Your task to perform on an android device: find snoozed emails in the gmail app Image 0: 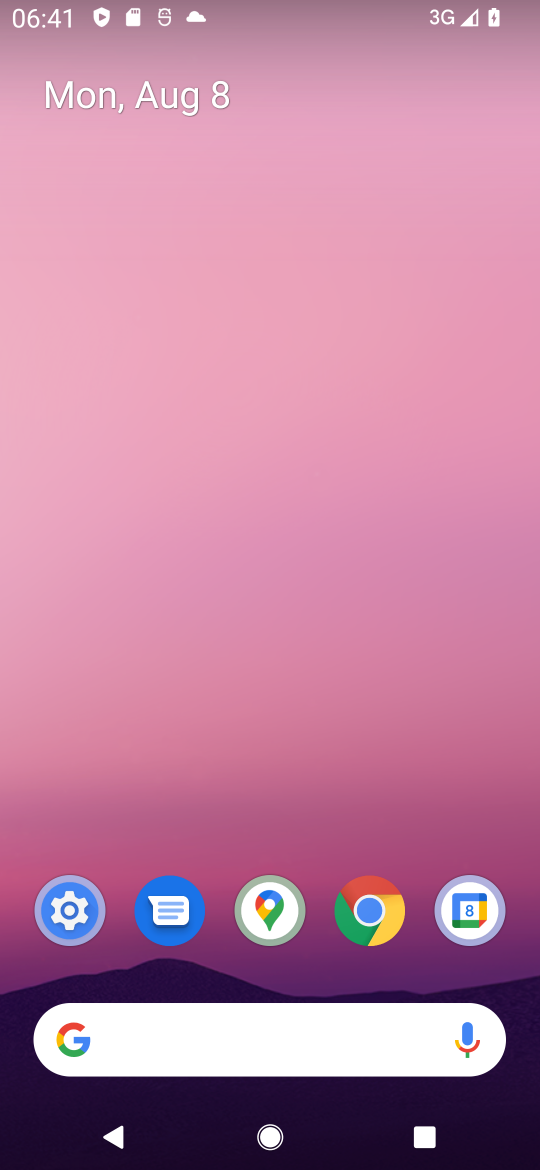
Step 0: drag from (242, 1052) to (403, 336)
Your task to perform on an android device: find snoozed emails in the gmail app Image 1: 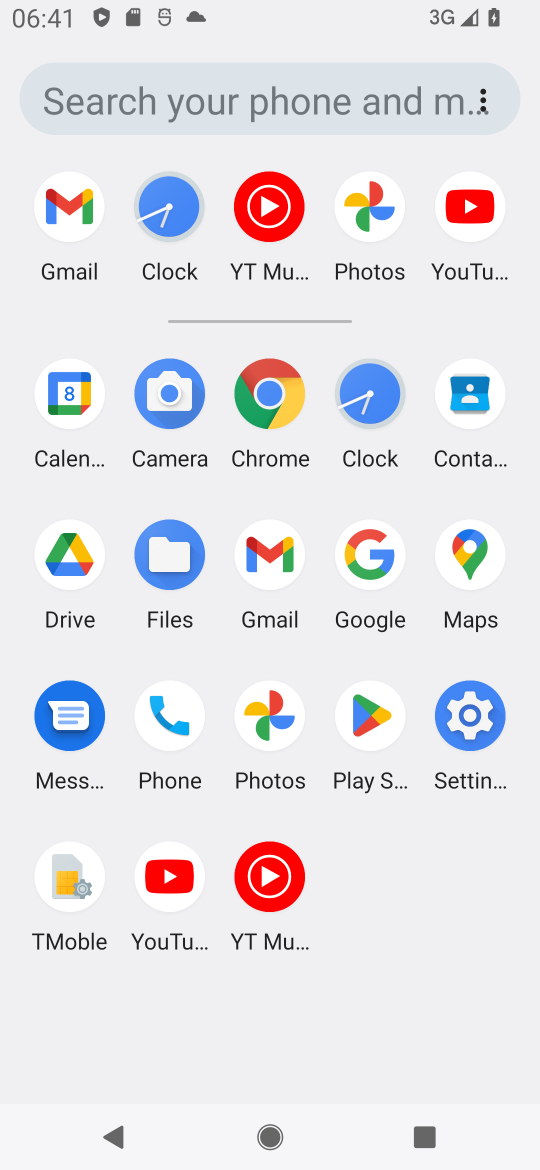
Step 1: click (274, 559)
Your task to perform on an android device: find snoozed emails in the gmail app Image 2: 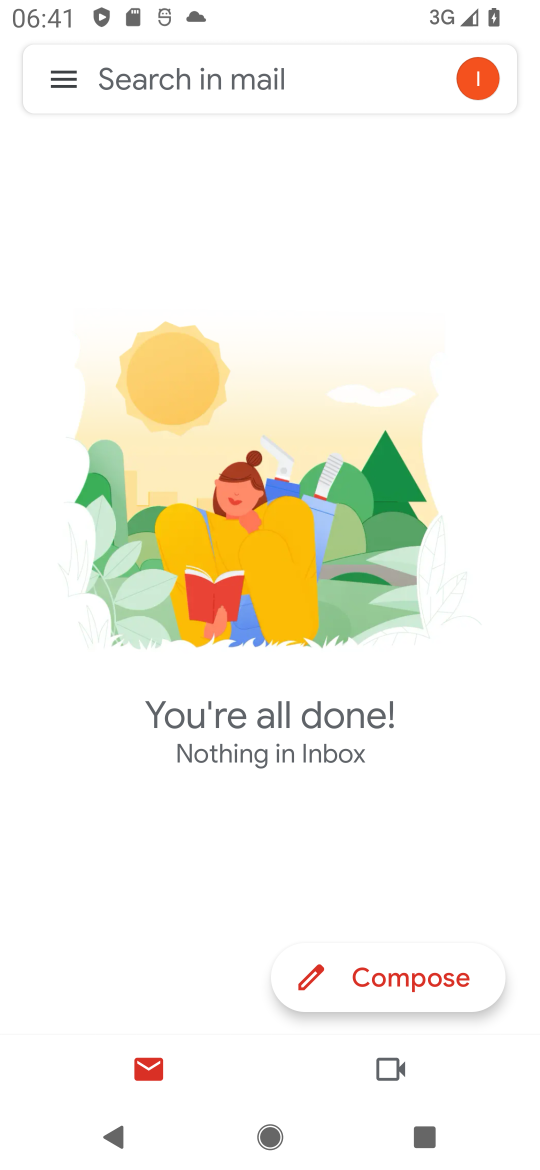
Step 2: click (68, 82)
Your task to perform on an android device: find snoozed emails in the gmail app Image 3: 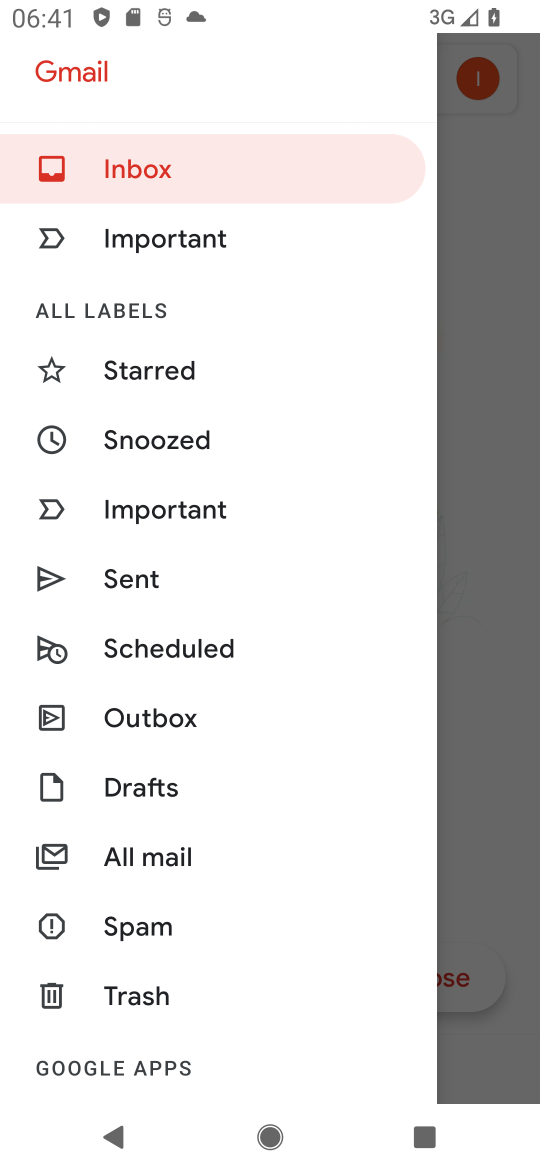
Step 3: click (158, 448)
Your task to perform on an android device: find snoozed emails in the gmail app Image 4: 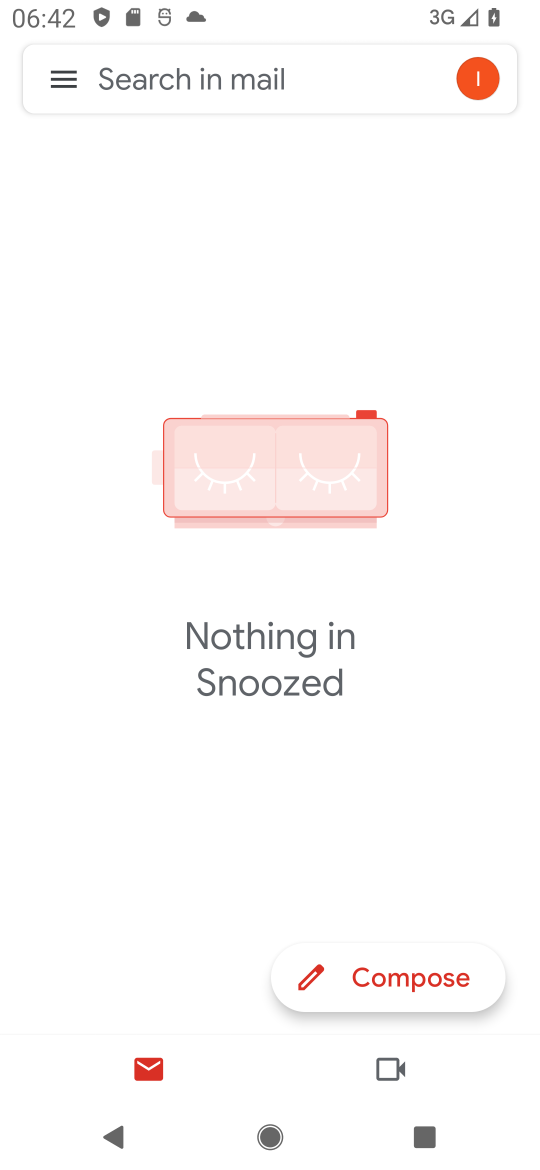
Step 4: click (61, 88)
Your task to perform on an android device: find snoozed emails in the gmail app Image 5: 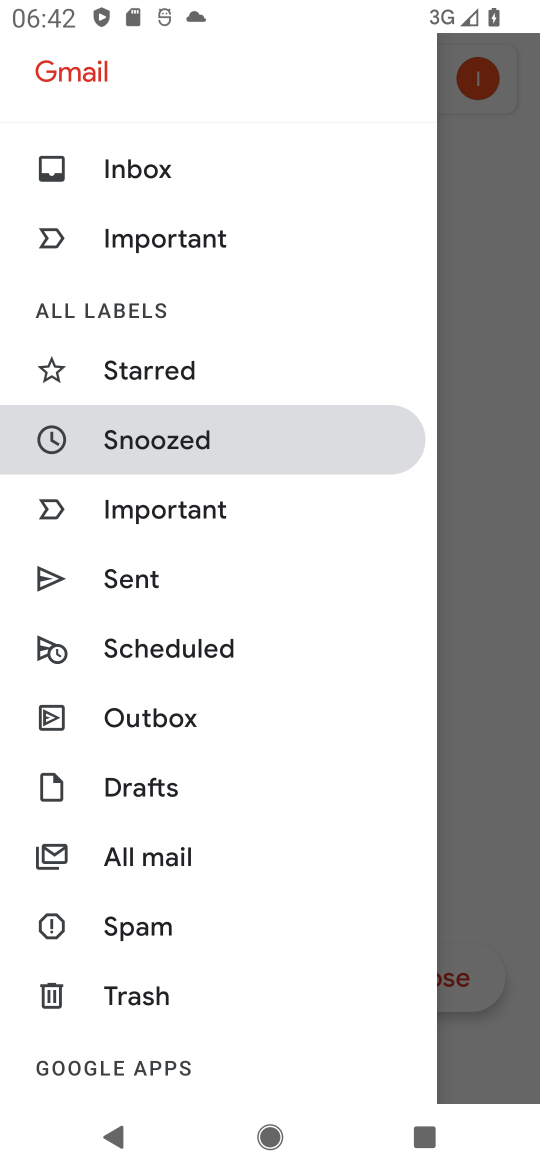
Step 5: click (163, 163)
Your task to perform on an android device: find snoozed emails in the gmail app Image 6: 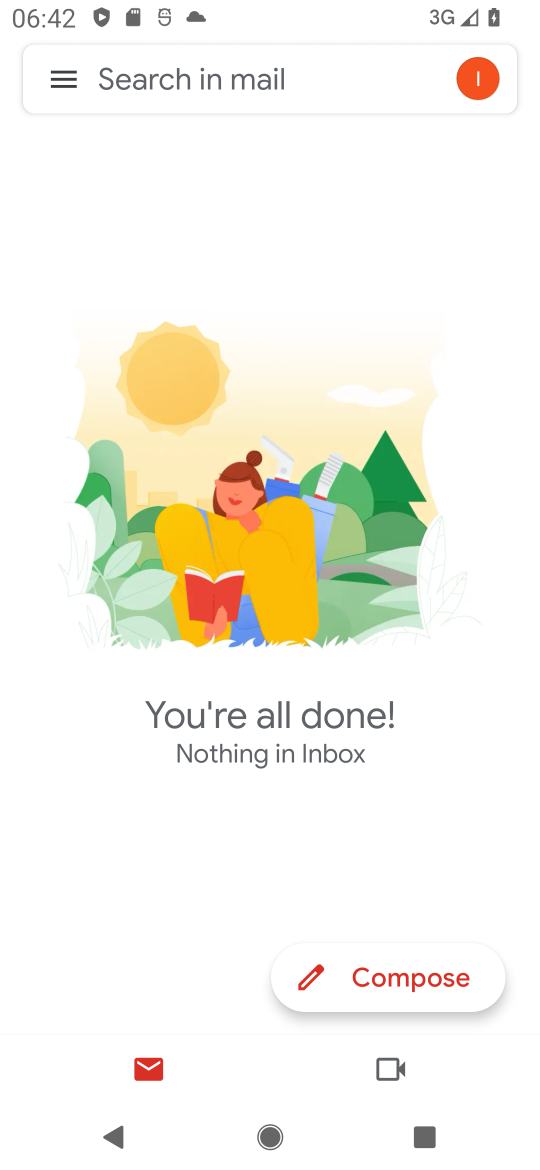
Step 6: click (68, 96)
Your task to perform on an android device: find snoozed emails in the gmail app Image 7: 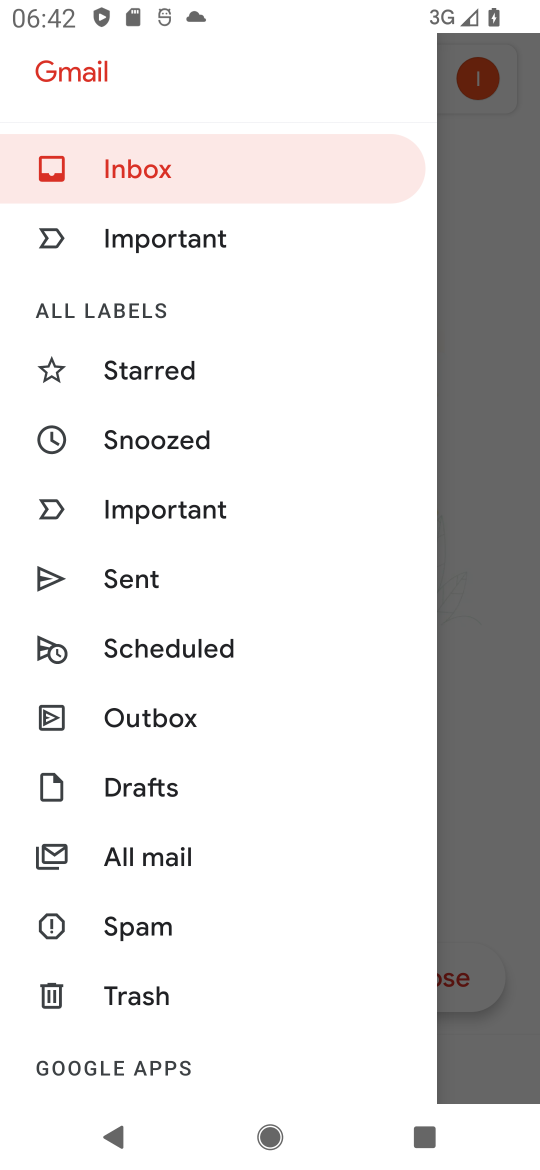
Step 7: click (147, 244)
Your task to perform on an android device: find snoozed emails in the gmail app Image 8: 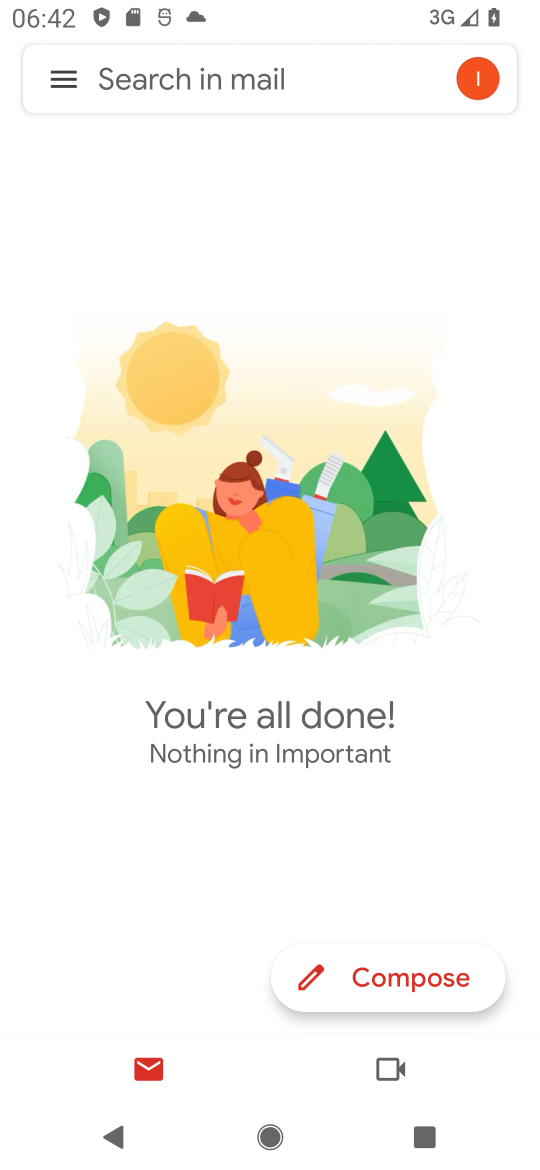
Step 8: click (58, 79)
Your task to perform on an android device: find snoozed emails in the gmail app Image 9: 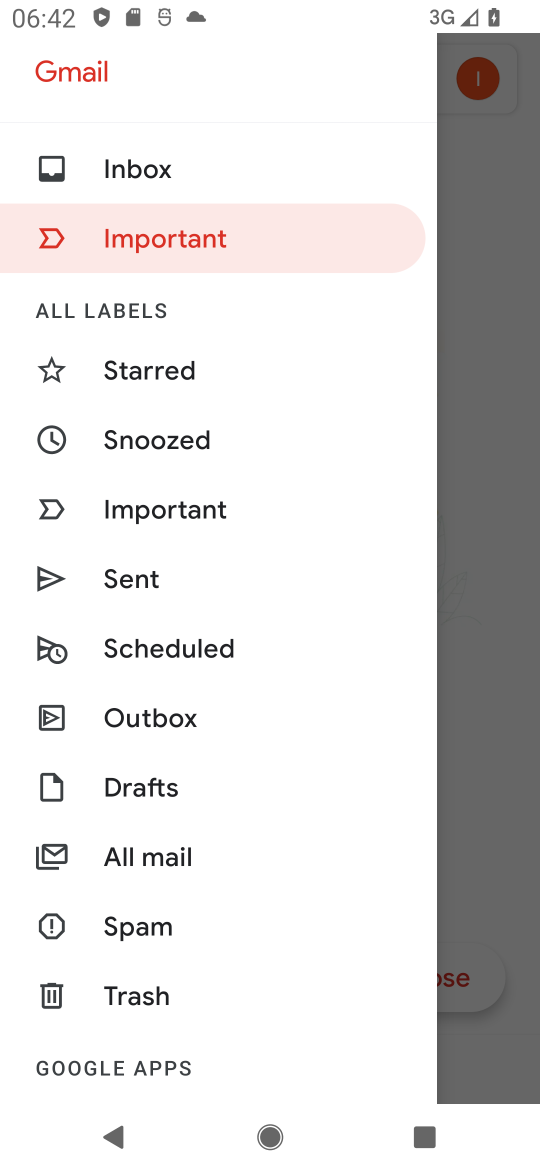
Step 9: click (162, 507)
Your task to perform on an android device: find snoozed emails in the gmail app Image 10: 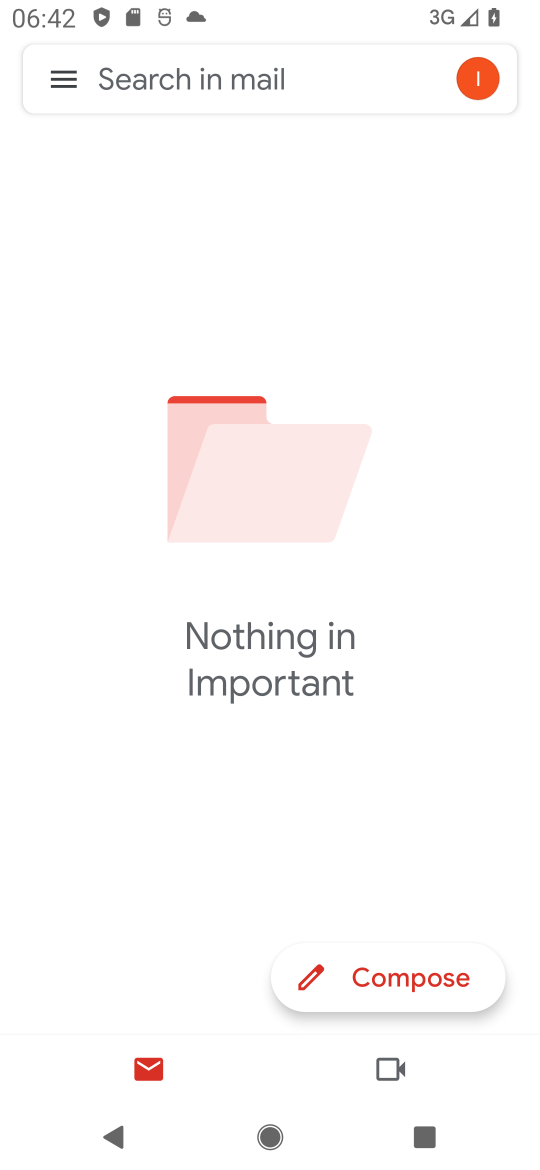
Step 10: click (58, 89)
Your task to perform on an android device: find snoozed emails in the gmail app Image 11: 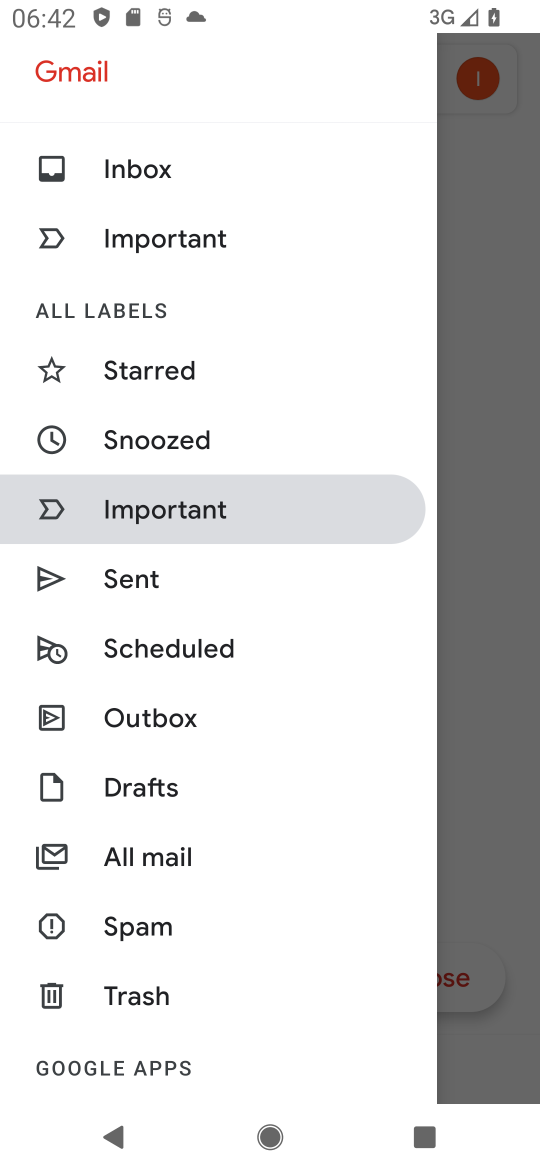
Step 11: click (119, 574)
Your task to perform on an android device: find snoozed emails in the gmail app Image 12: 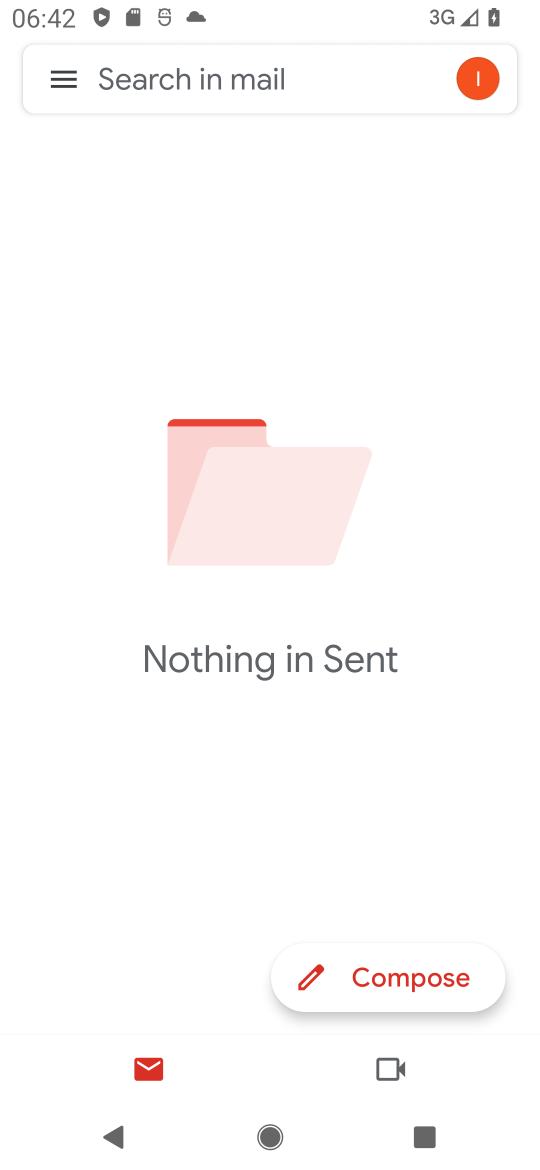
Step 12: click (63, 82)
Your task to perform on an android device: find snoozed emails in the gmail app Image 13: 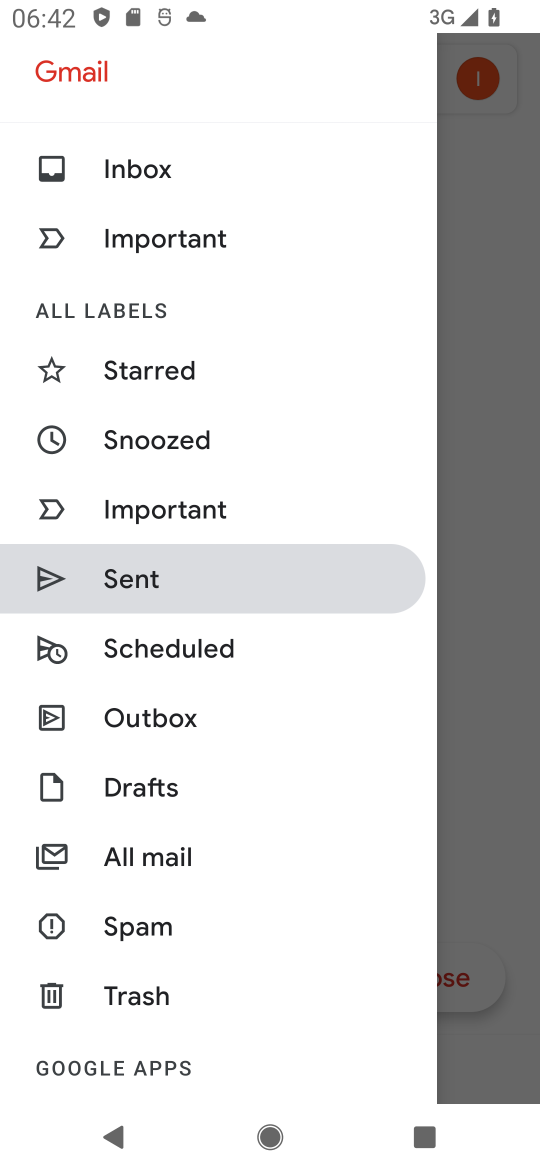
Step 13: click (185, 650)
Your task to perform on an android device: find snoozed emails in the gmail app Image 14: 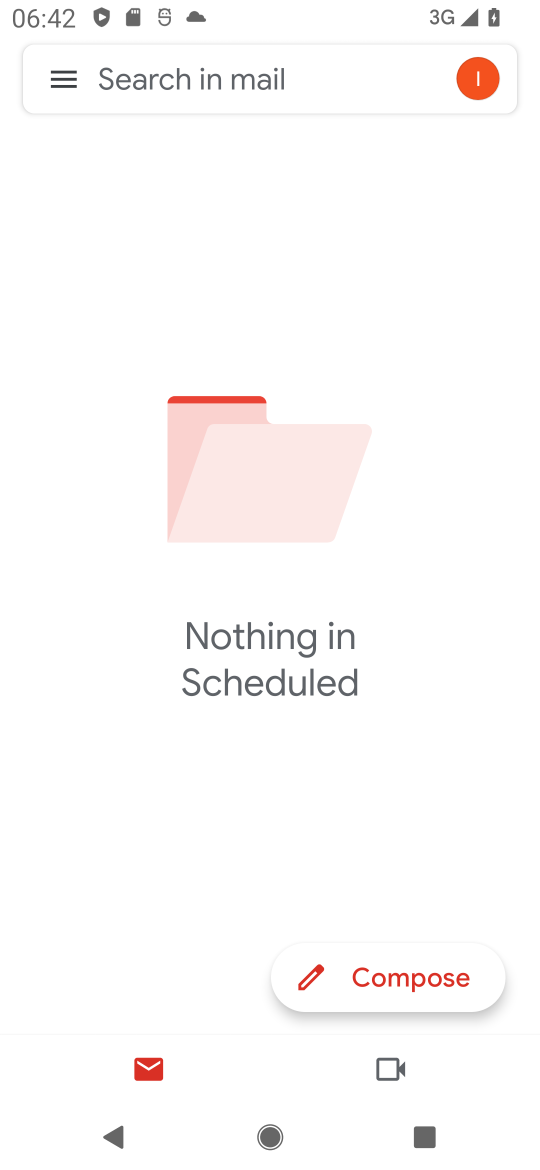
Step 14: click (52, 93)
Your task to perform on an android device: find snoozed emails in the gmail app Image 15: 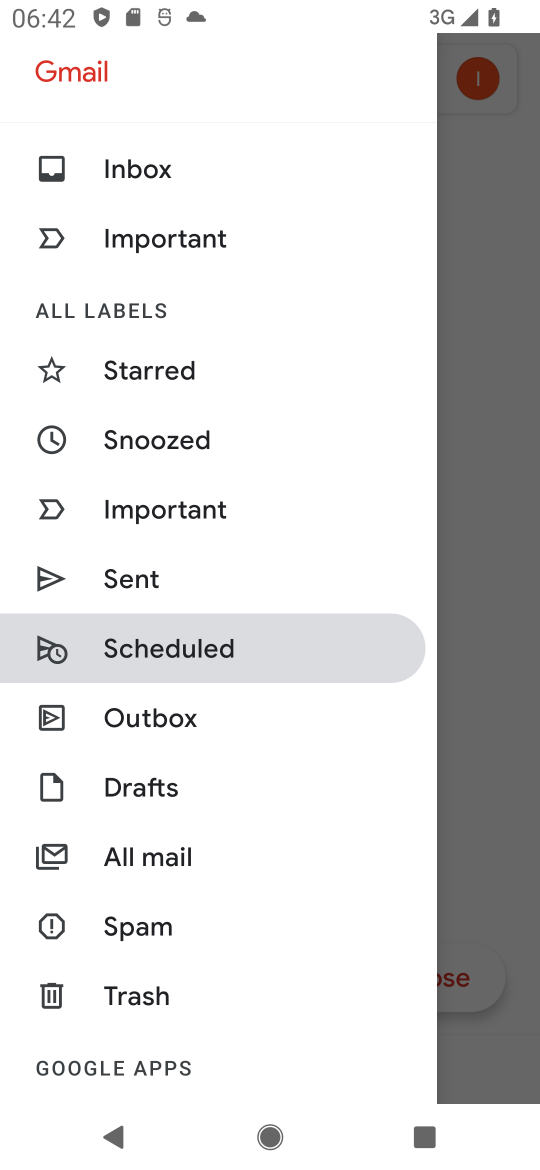
Step 15: click (141, 736)
Your task to perform on an android device: find snoozed emails in the gmail app Image 16: 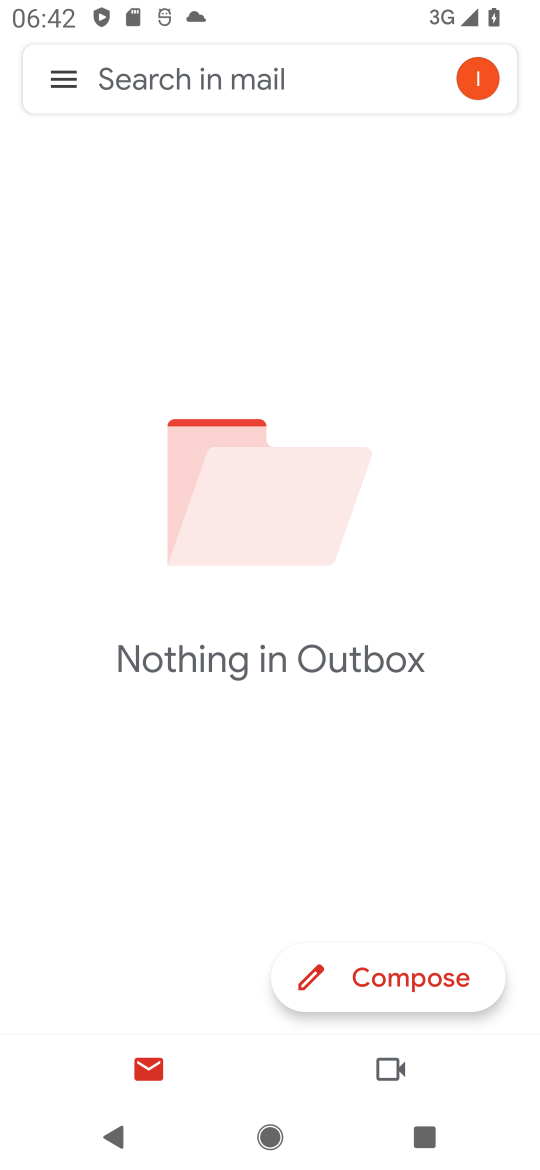
Step 16: click (61, 74)
Your task to perform on an android device: find snoozed emails in the gmail app Image 17: 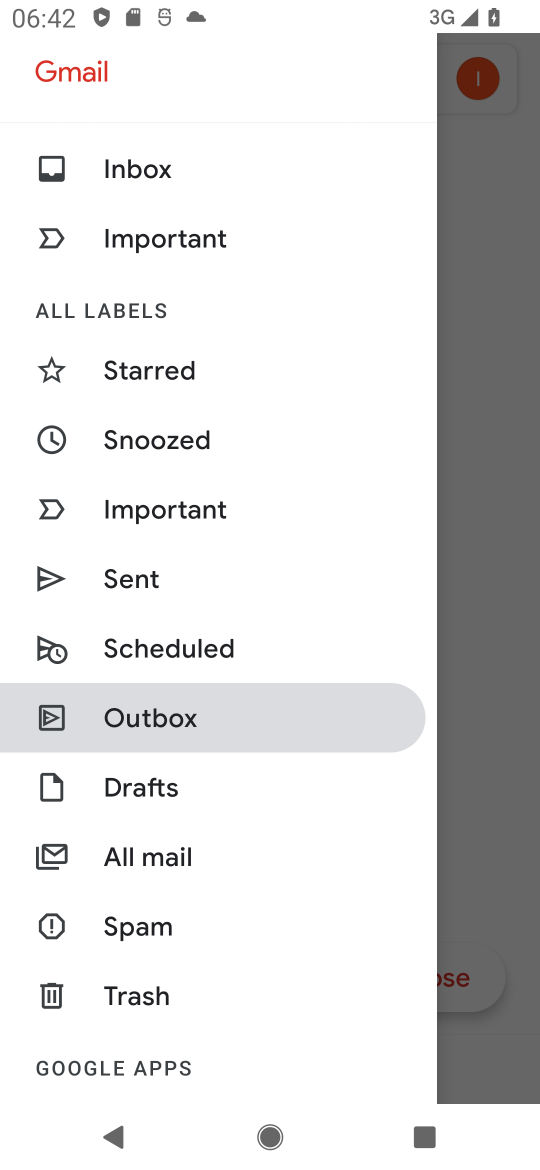
Step 17: click (142, 778)
Your task to perform on an android device: find snoozed emails in the gmail app Image 18: 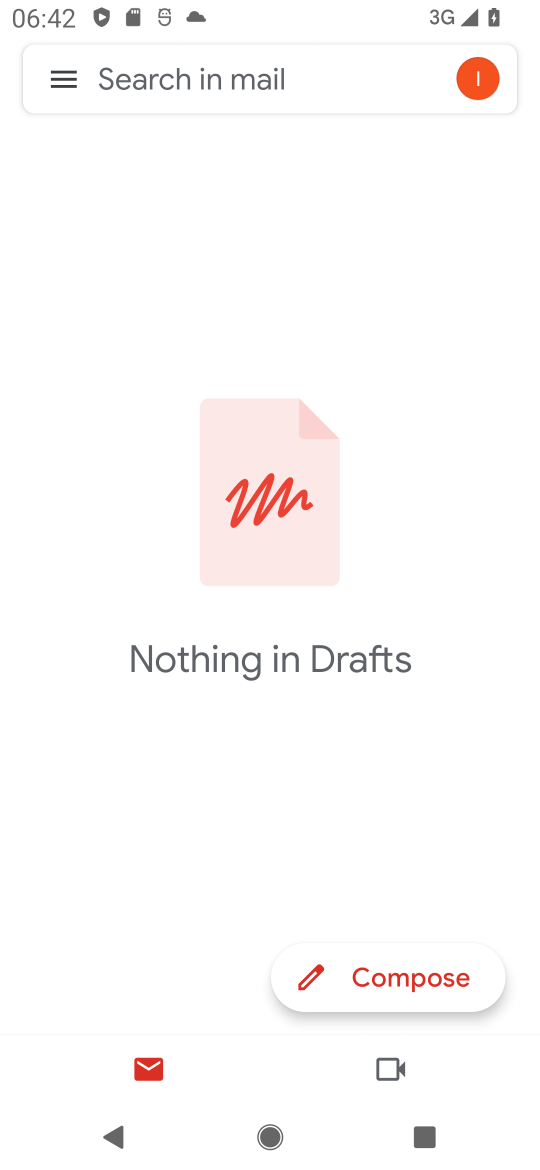
Step 18: click (61, 83)
Your task to perform on an android device: find snoozed emails in the gmail app Image 19: 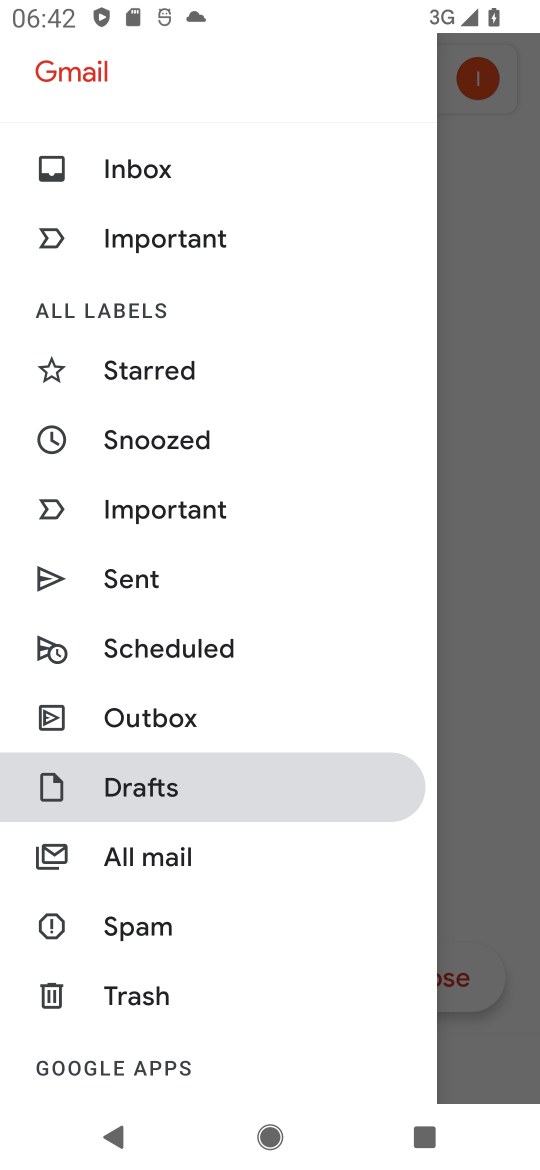
Step 19: click (131, 851)
Your task to perform on an android device: find snoozed emails in the gmail app Image 20: 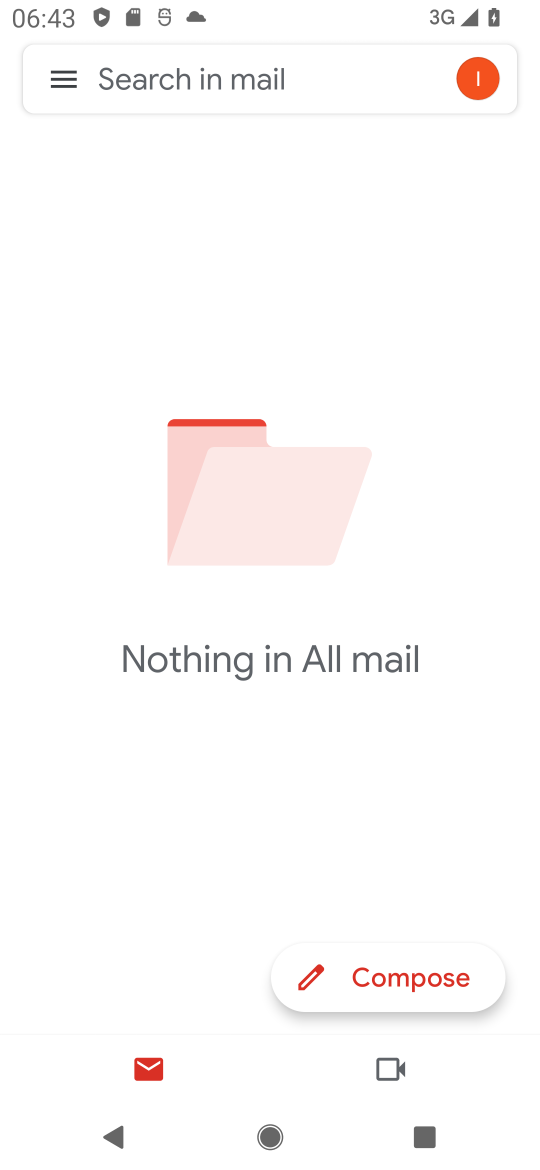
Step 20: task complete